Your task to perform on an android device: turn off airplane mode Image 0: 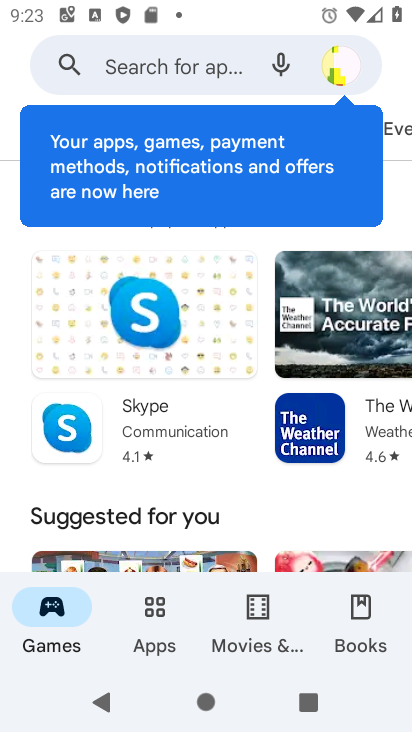
Step 0: press back button
Your task to perform on an android device: turn off airplane mode Image 1: 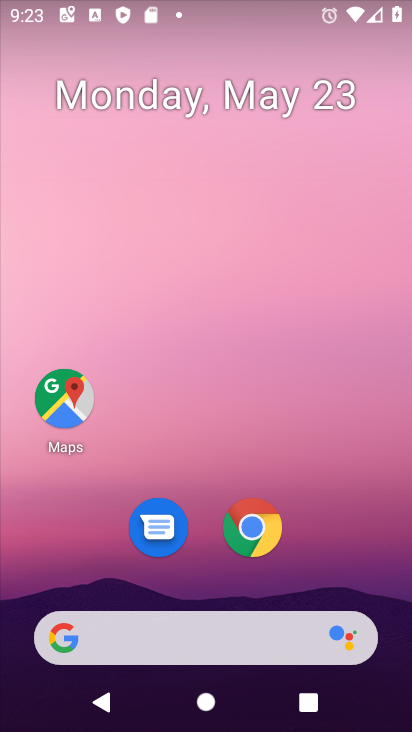
Step 1: drag from (398, 570) to (292, 41)
Your task to perform on an android device: turn off airplane mode Image 2: 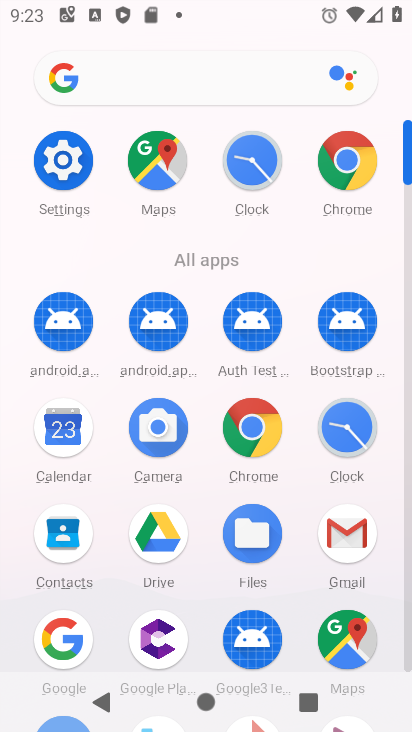
Step 2: click (62, 158)
Your task to perform on an android device: turn off airplane mode Image 3: 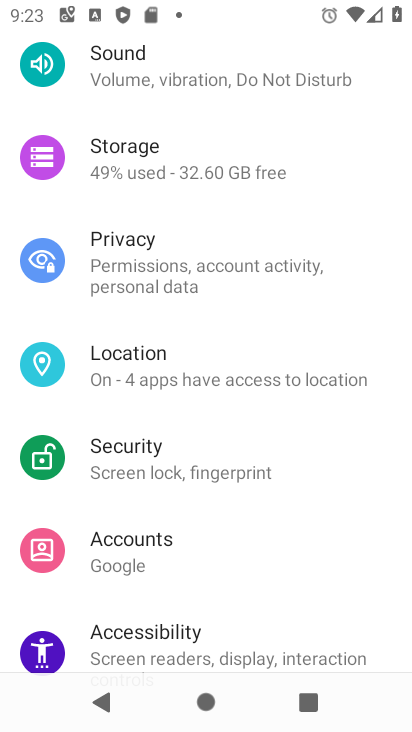
Step 3: drag from (267, 520) to (289, 140)
Your task to perform on an android device: turn off airplane mode Image 4: 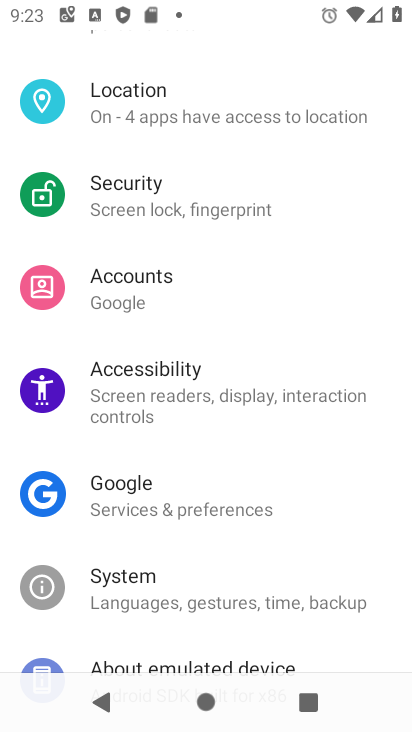
Step 4: drag from (288, 120) to (237, 641)
Your task to perform on an android device: turn off airplane mode Image 5: 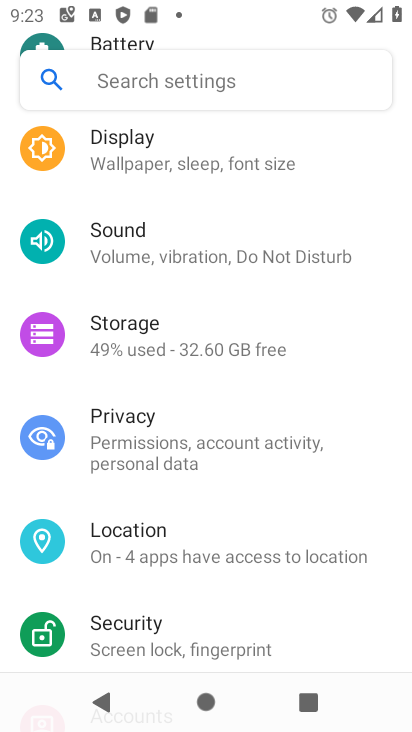
Step 5: drag from (273, 250) to (257, 650)
Your task to perform on an android device: turn off airplane mode Image 6: 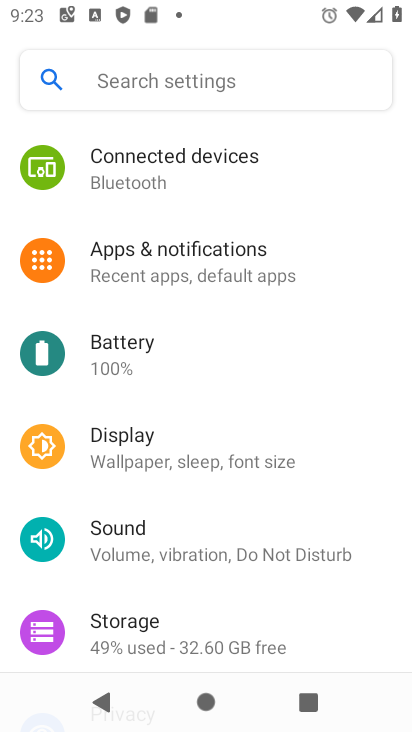
Step 6: drag from (299, 191) to (262, 572)
Your task to perform on an android device: turn off airplane mode Image 7: 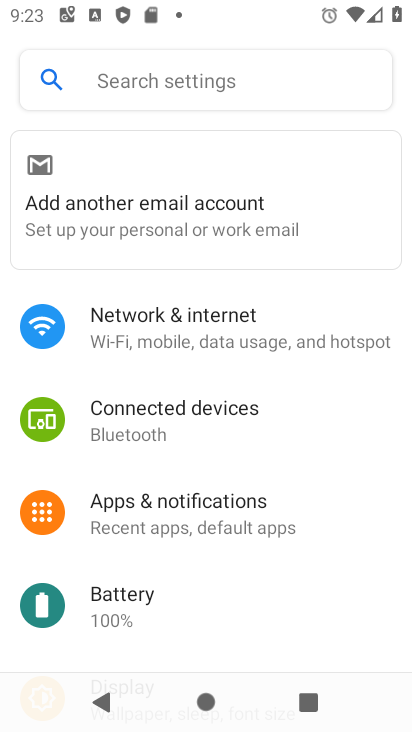
Step 7: click (214, 321)
Your task to perform on an android device: turn off airplane mode Image 8: 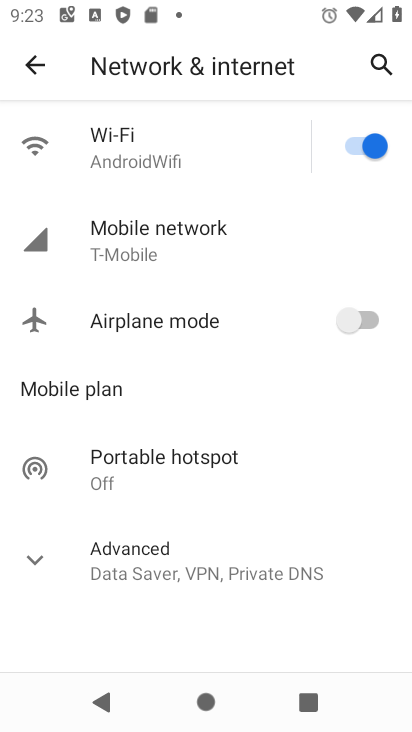
Step 8: click (37, 539)
Your task to perform on an android device: turn off airplane mode Image 9: 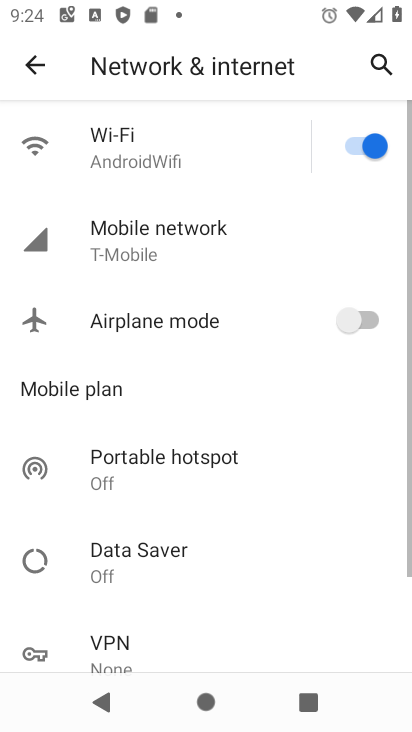
Step 9: task complete